Your task to perform on an android device: What's on my calendar tomorrow? Image 0: 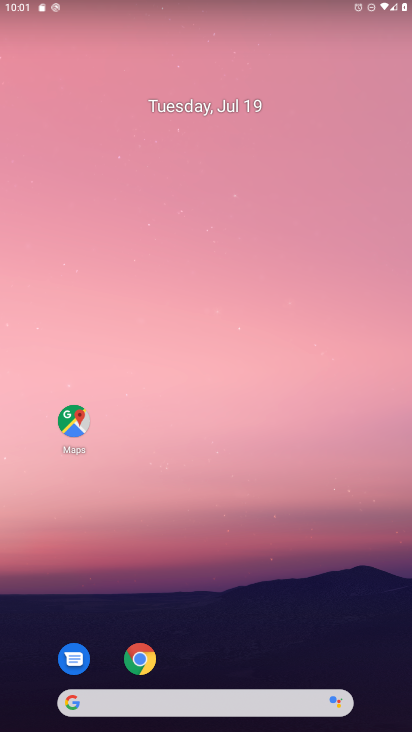
Step 0: drag from (246, 626) to (260, 229)
Your task to perform on an android device: What's on my calendar tomorrow? Image 1: 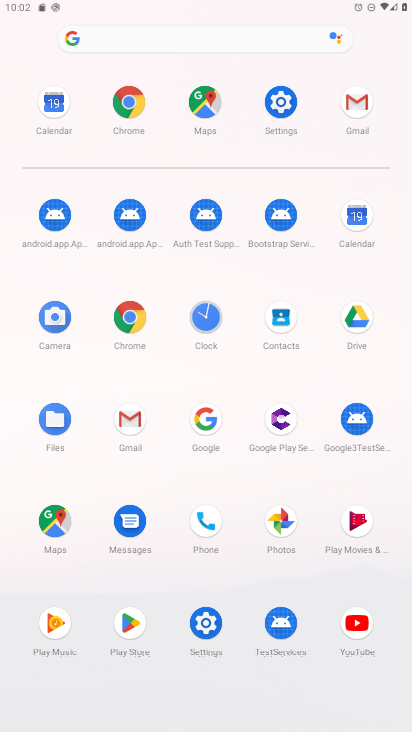
Step 1: click (343, 213)
Your task to perform on an android device: What's on my calendar tomorrow? Image 2: 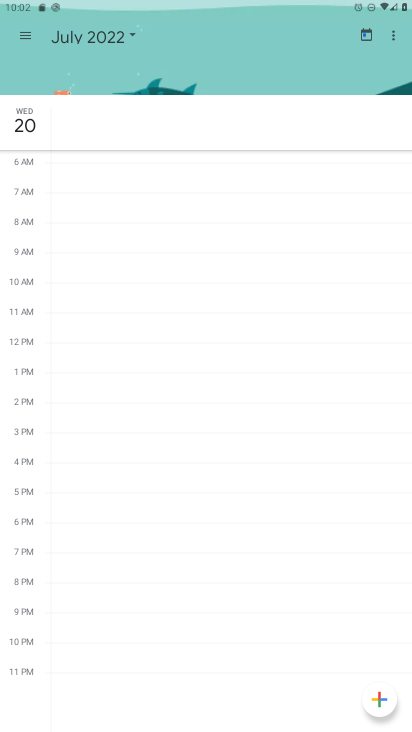
Step 2: click (22, 26)
Your task to perform on an android device: What's on my calendar tomorrow? Image 3: 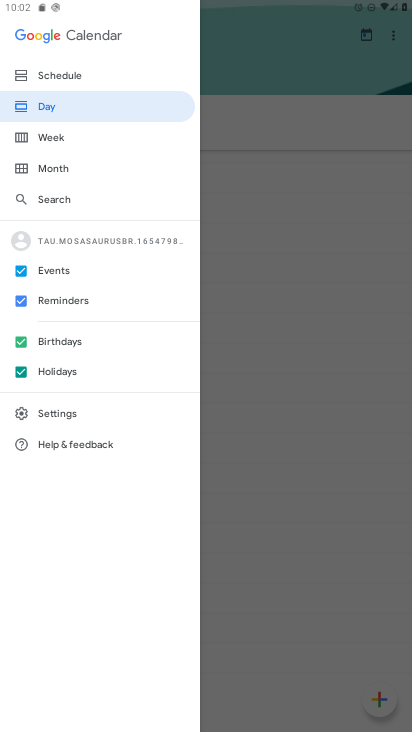
Step 3: click (64, 162)
Your task to perform on an android device: What's on my calendar tomorrow? Image 4: 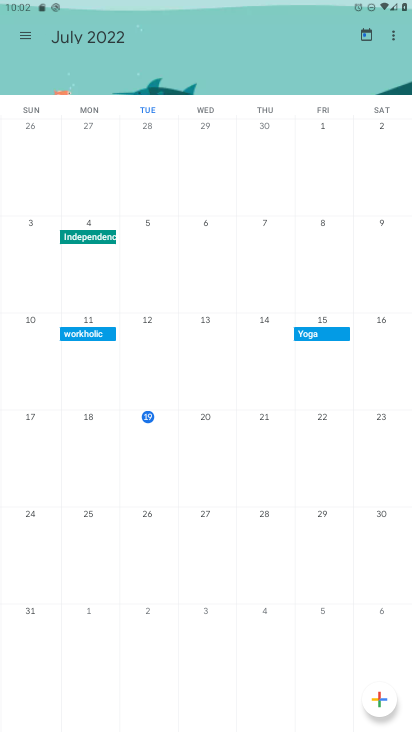
Step 4: click (262, 428)
Your task to perform on an android device: What's on my calendar tomorrow? Image 5: 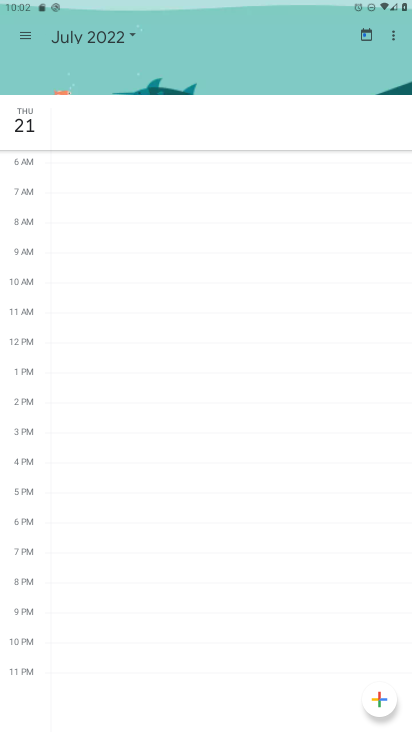
Step 5: task complete